Your task to perform on an android device: check out phone information Image 0: 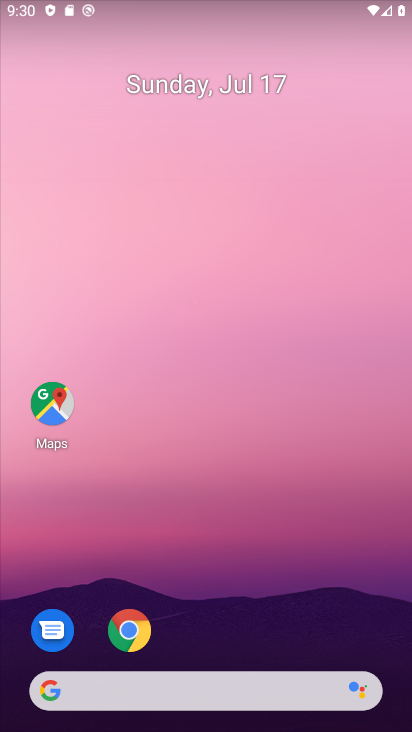
Step 0: drag from (191, 662) to (201, 205)
Your task to perform on an android device: check out phone information Image 1: 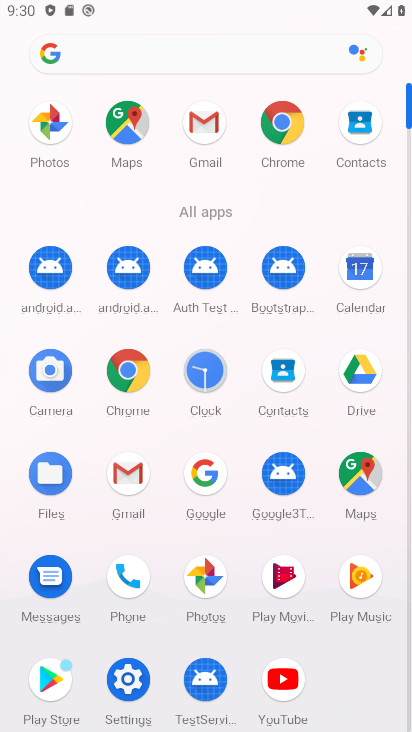
Step 1: click (114, 672)
Your task to perform on an android device: check out phone information Image 2: 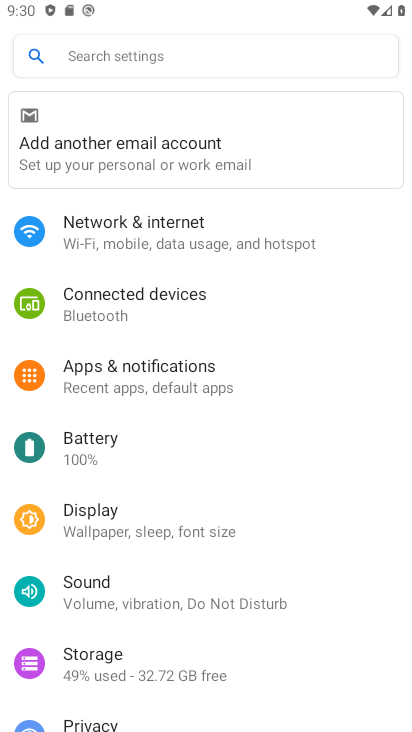
Step 2: drag from (162, 677) to (268, 85)
Your task to perform on an android device: check out phone information Image 3: 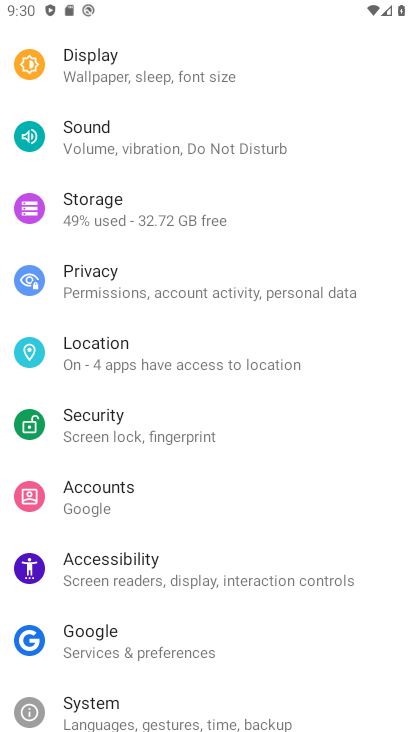
Step 3: drag from (145, 713) to (264, 145)
Your task to perform on an android device: check out phone information Image 4: 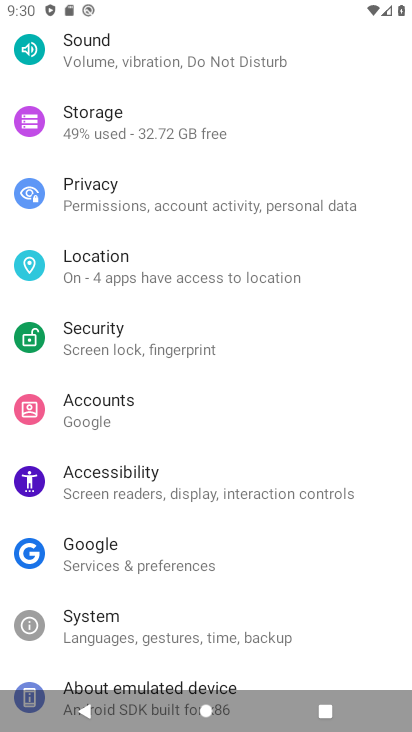
Step 4: click (220, 676)
Your task to perform on an android device: check out phone information Image 5: 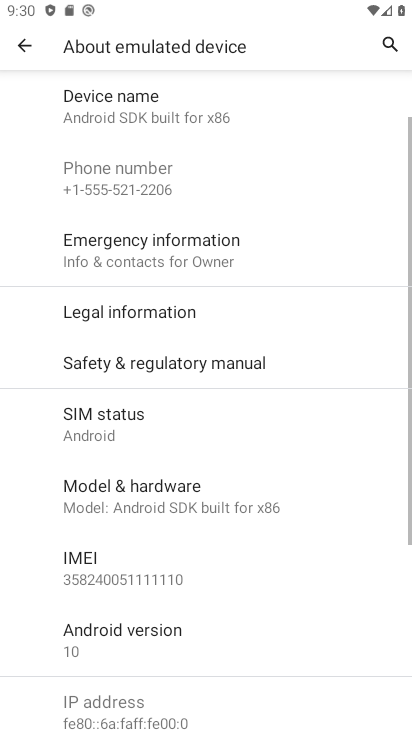
Step 5: click (220, 678)
Your task to perform on an android device: check out phone information Image 6: 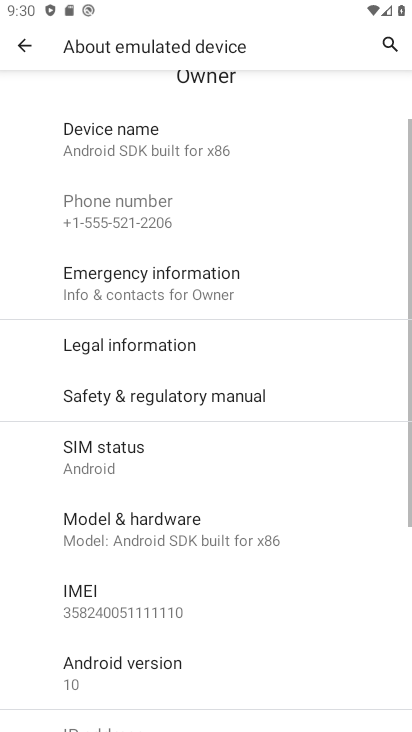
Step 6: task complete